Your task to perform on an android device: turn vacation reply on in the gmail app Image 0: 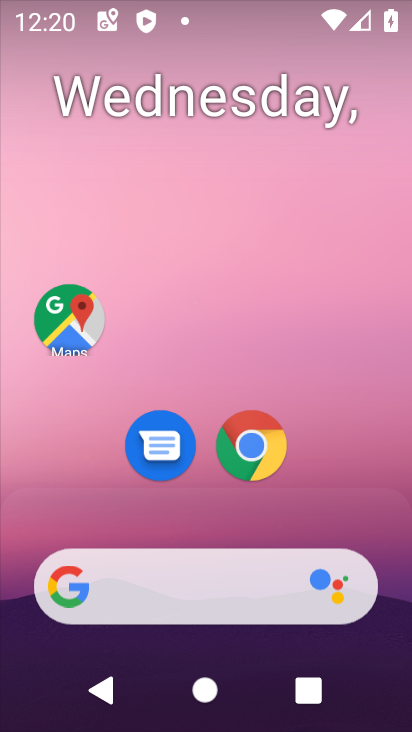
Step 0: drag from (329, 361) to (238, 1)
Your task to perform on an android device: turn vacation reply on in the gmail app Image 1: 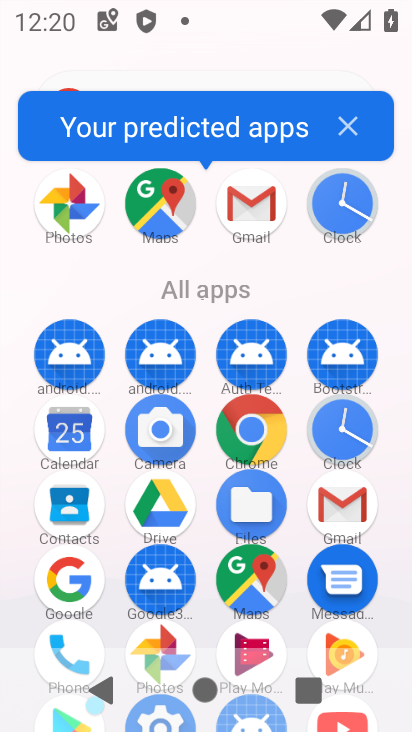
Step 1: click (266, 202)
Your task to perform on an android device: turn vacation reply on in the gmail app Image 2: 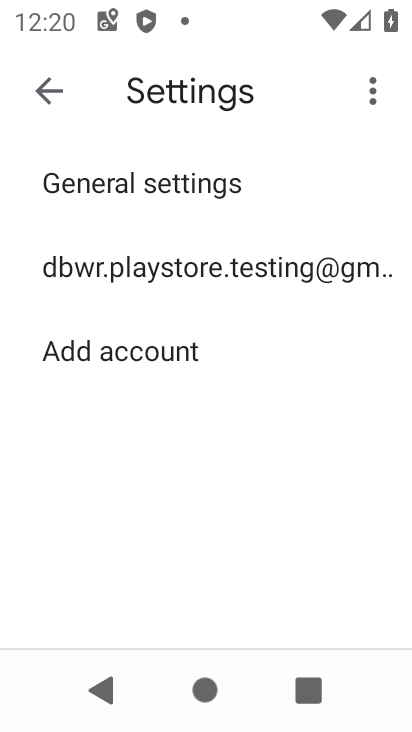
Step 2: click (96, 257)
Your task to perform on an android device: turn vacation reply on in the gmail app Image 3: 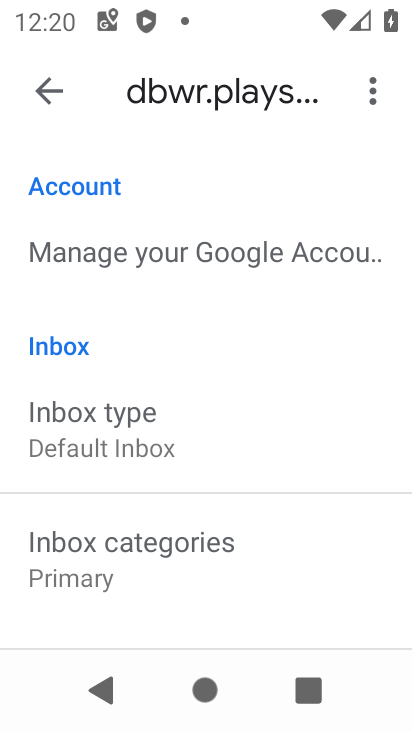
Step 3: task complete